Your task to perform on an android device: Open eBay Image 0: 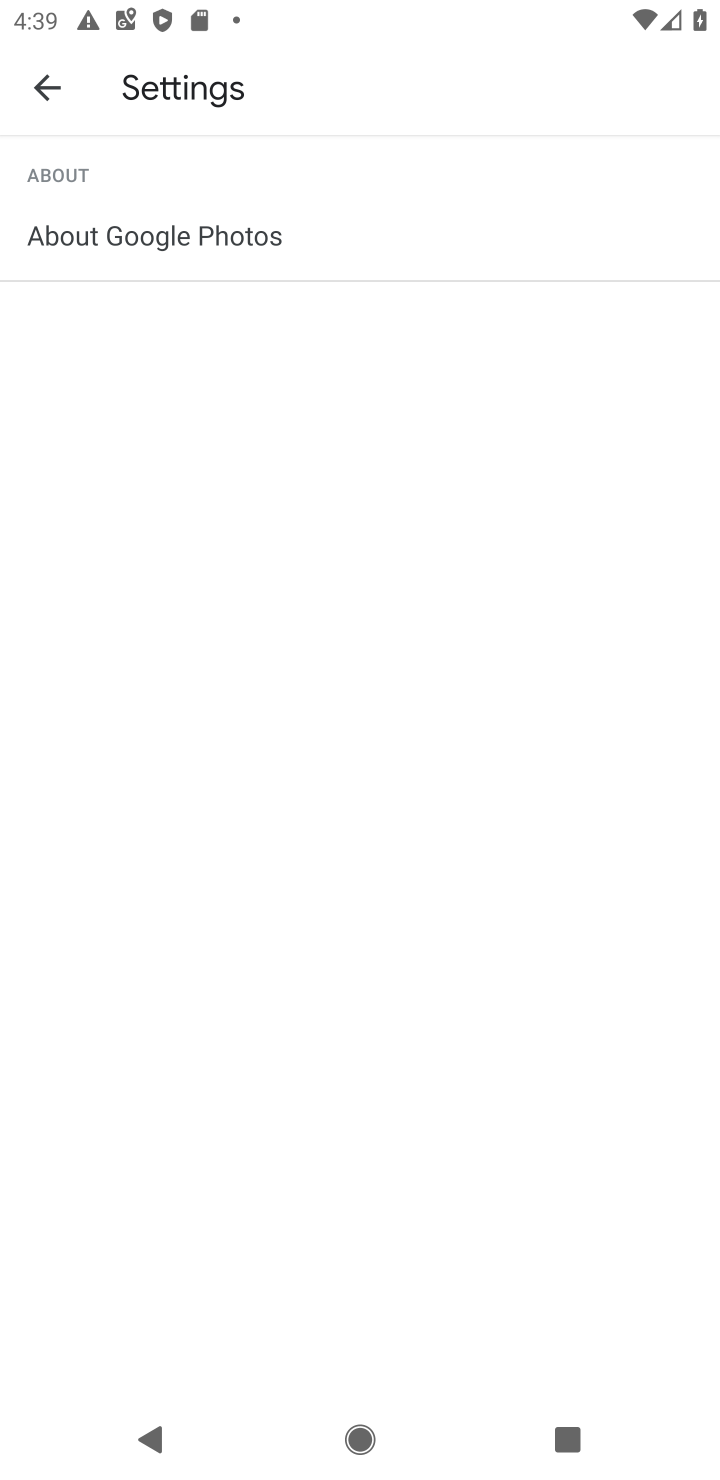
Step 0: press home button
Your task to perform on an android device: Open eBay Image 1: 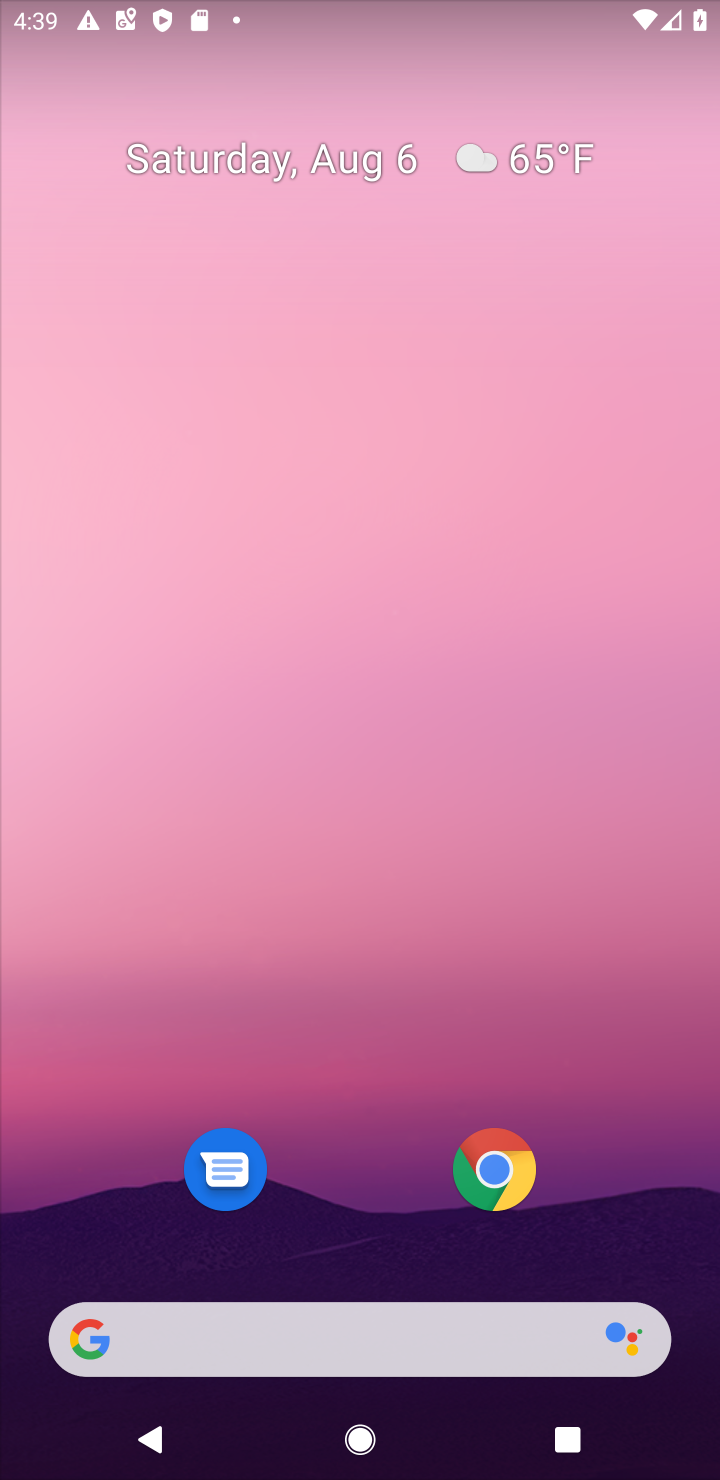
Step 1: click (508, 1169)
Your task to perform on an android device: Open eBay Image 2: 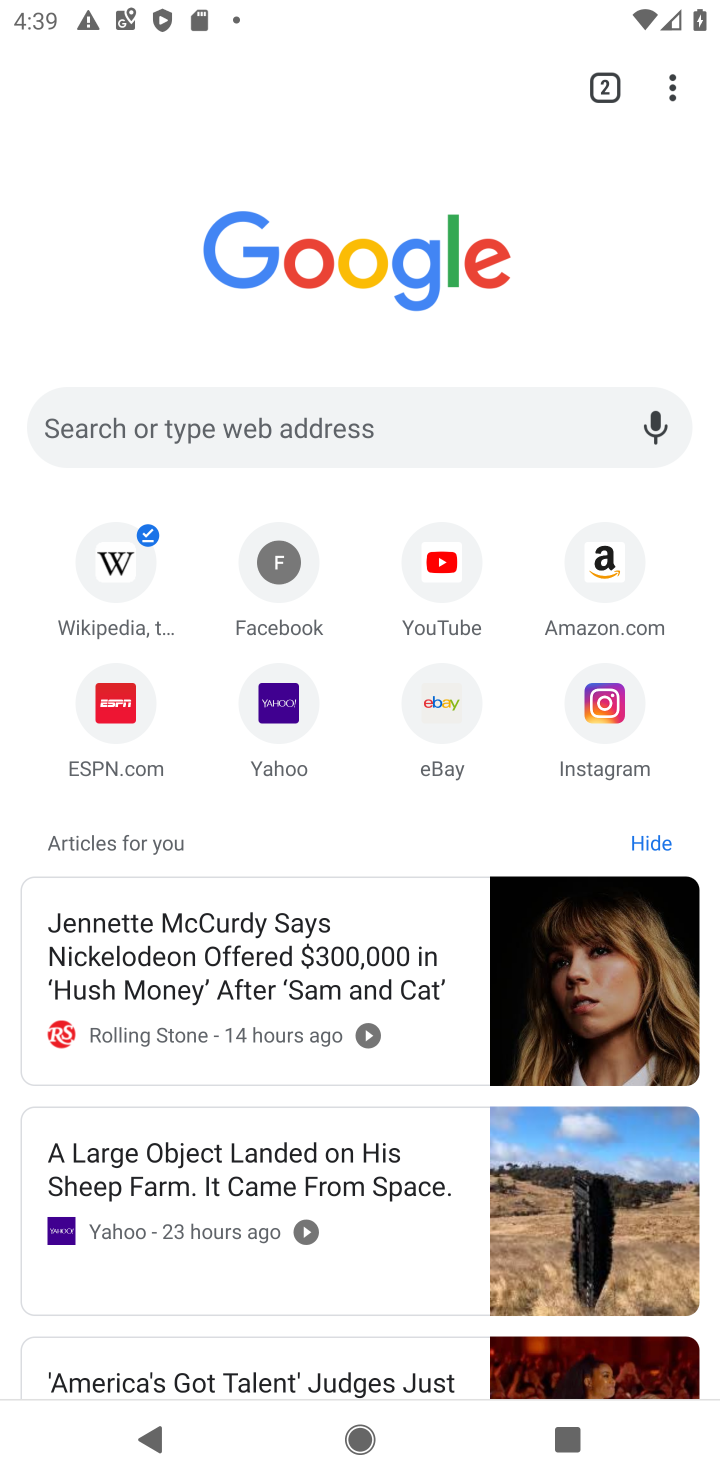
Step 2: click (441, 713)
Your task to perform on an android device: Open eBay Image 3: 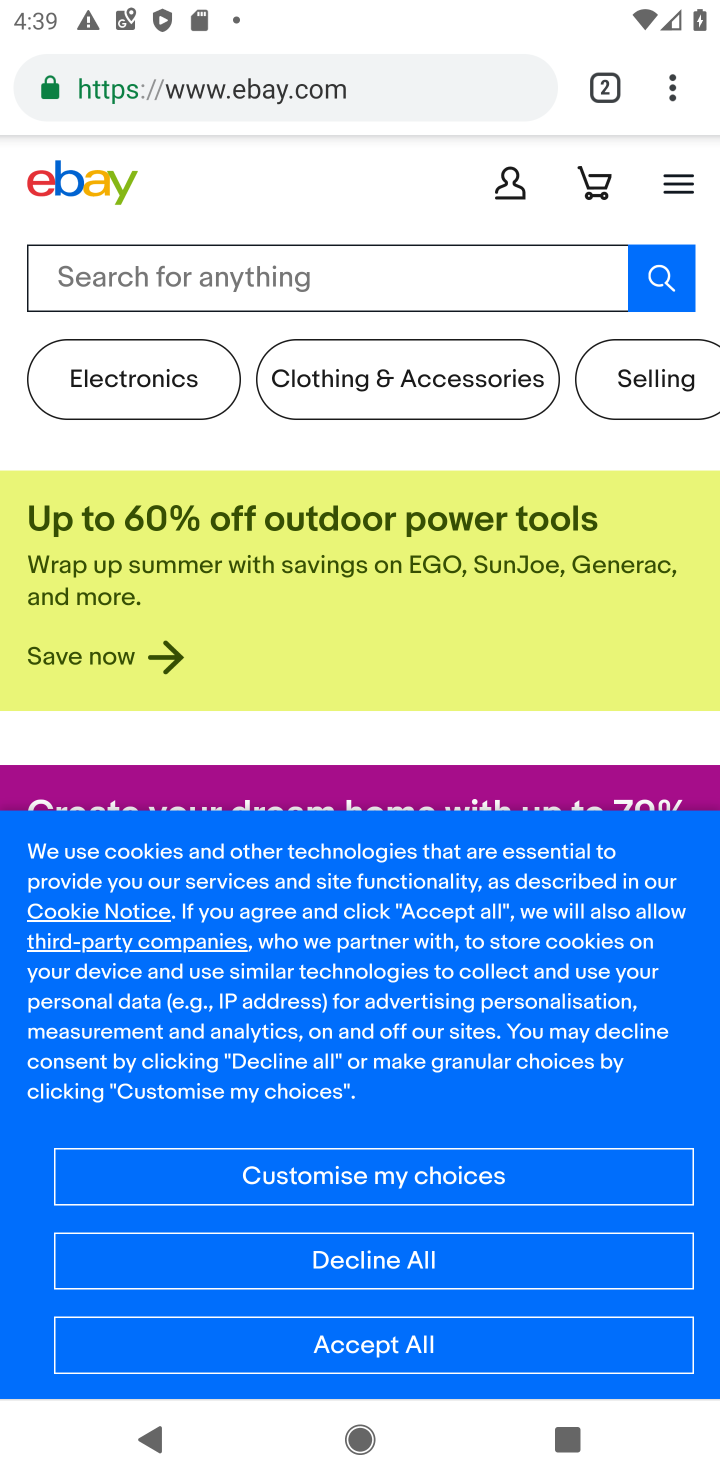
Step 3: task complete